Your task to perform on an android device: Go to Reddit.com Image 0: 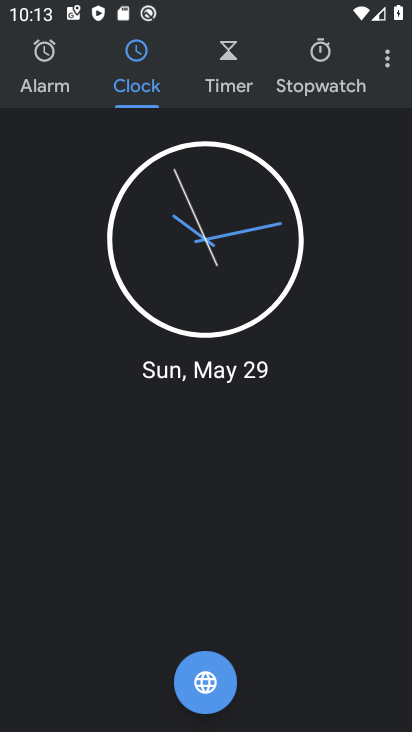
Step 0: press home button
Your task to perform on an android device: Go to Reddit.com Image 1: 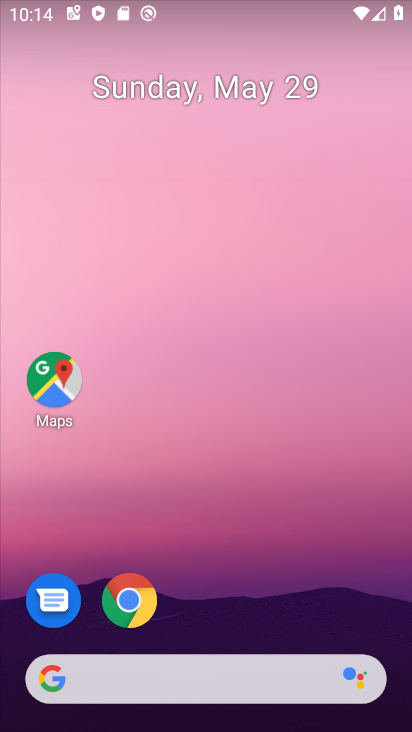
Step 1: click (123, 599)
Your task to perform on an android device: Go to Reddit.com Image 2: 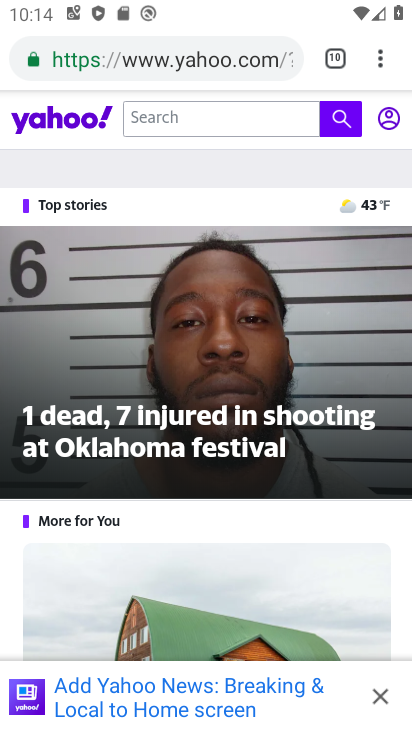
Step 2: click (380, 64)
Your task to perform on an android device: Go to Reddit.com Image 3: 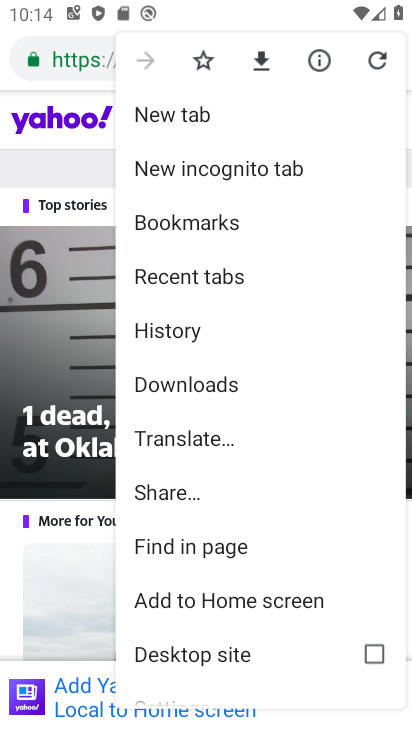
Step 3: click (164, 119)
Your task to perform on an android device: Go to Reddit.com Image 4: 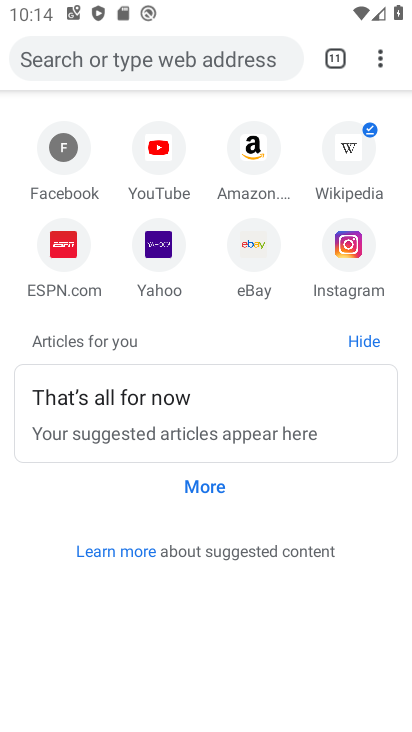
Step 4: click (185, 57)
Your task to perform on an android device: Go to Reddit.com Image 5: 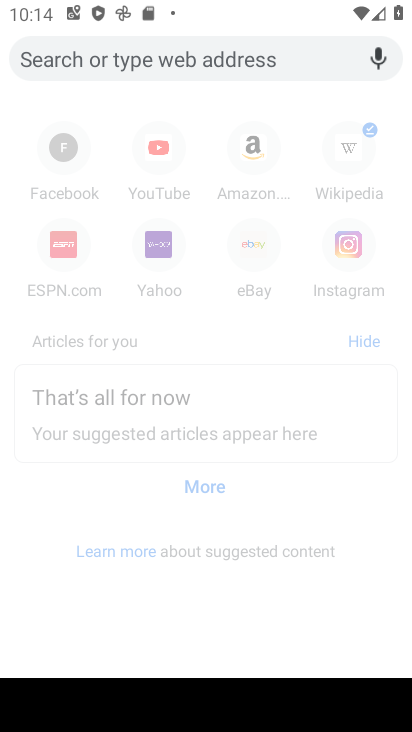
Step 5: type "Reddit.com"
Your task to perform on an android device: Go to Reddit.com Image 6: 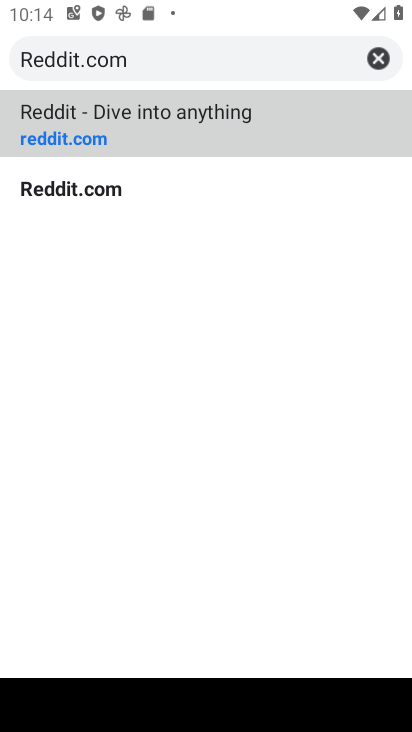
Step 6: click (90, 124)
Your task to perform on an android device: Go to Reddit.com Image 7: 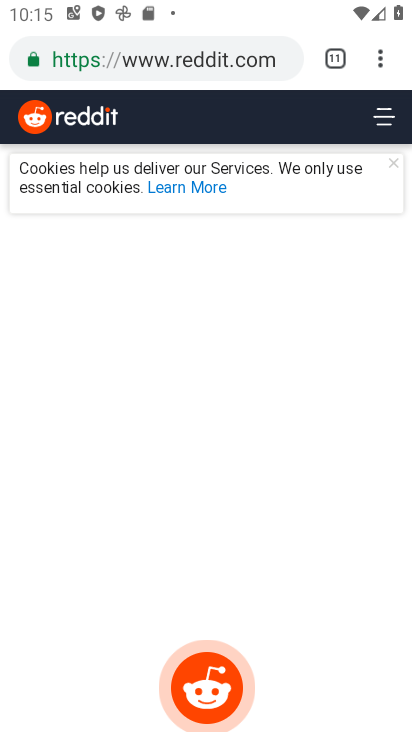
Step 7: task complete